Your task to perform on an android device: make emails show in primary in the gmail app Image 0: 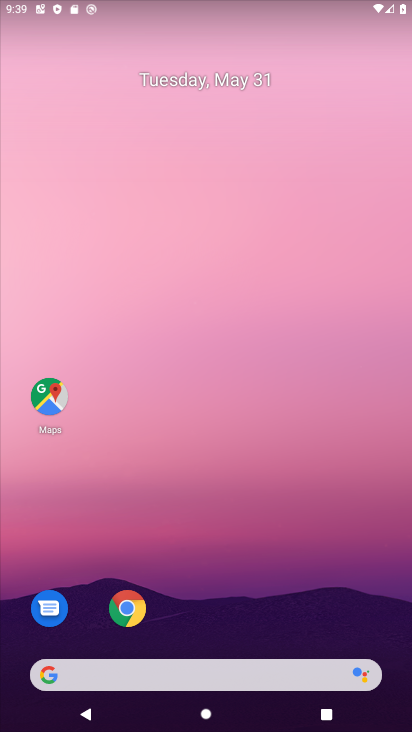
Step 0: drag from (287, 618) to (266, 227)
Your task to perform on an android device: make emails show in primary in the gmail app Image 1: 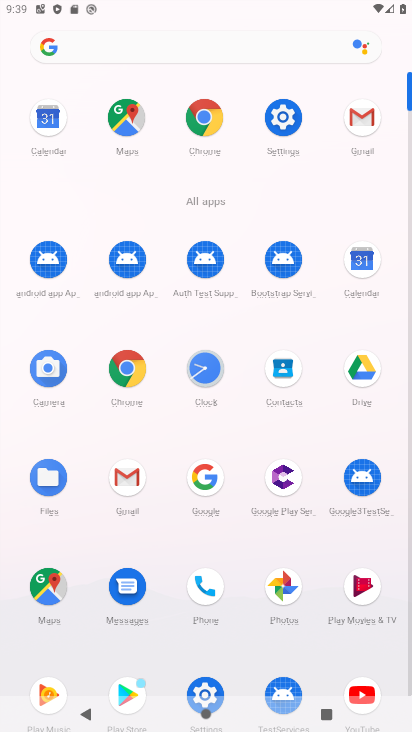
Step 1: click (144, 483)
Your task to perform on an android device: make emails show in primary in the gmail app Image 2: 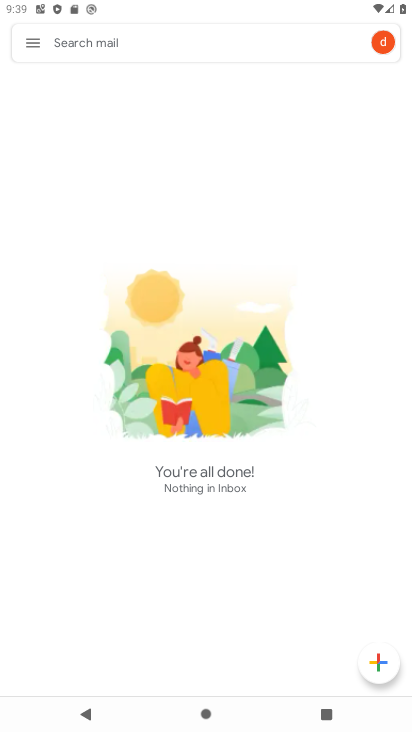
Step 2: task complete